Your task to perform on an android device: toggle translation in the chrome app Image 0: 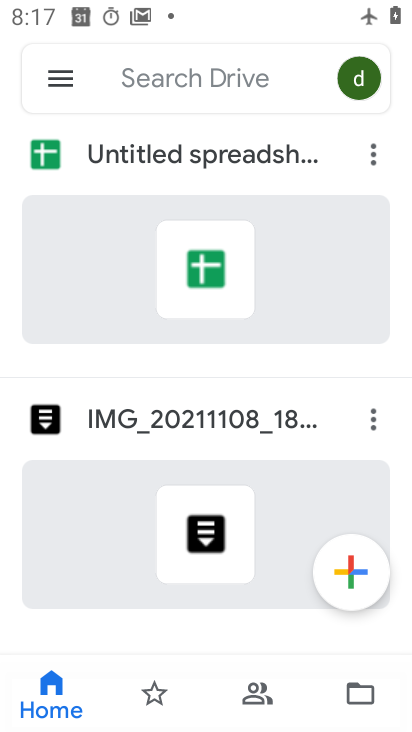
Step 0: press home button
Your task to perform on an android device: toggle translation in the chrome app Image 1: 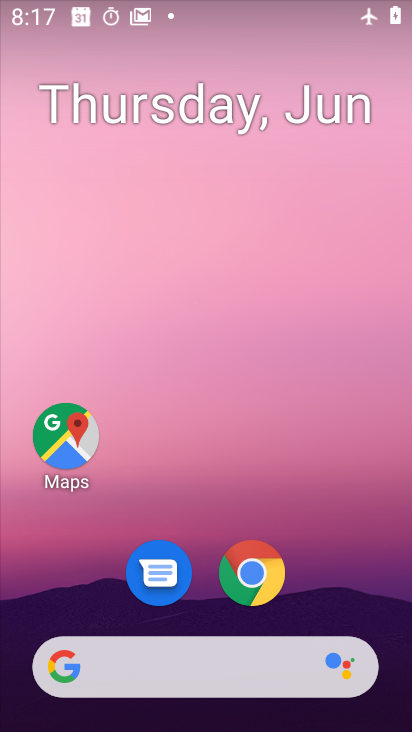
Step 1: click (235, 569)
Your task to perform on an android device: toggle translation in the chrome app Image 2: 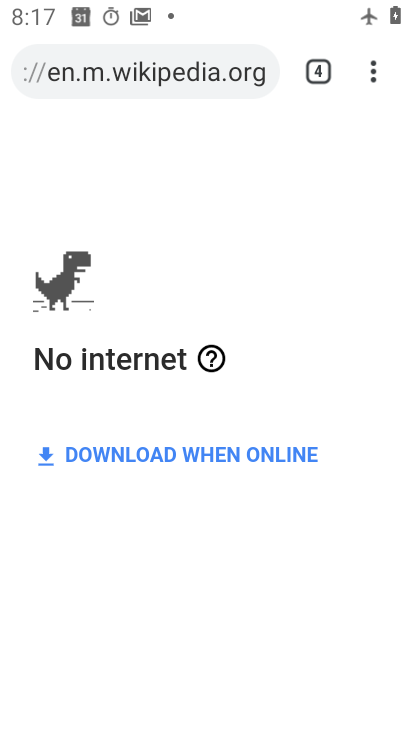
Step 2: click (369, 63)
Your task to perform on an android device: toggle translation in the chrome app Image 3: 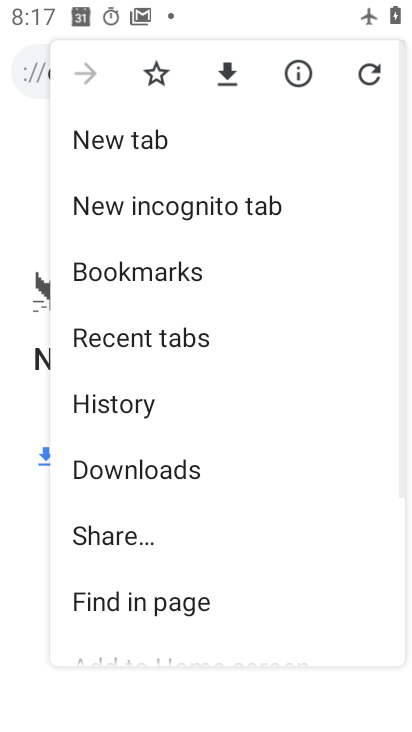
Step 3: drag from (143, 420) to (182, 219)
Your task to perform on an android device: toggle translation in the chrome app Image 4: 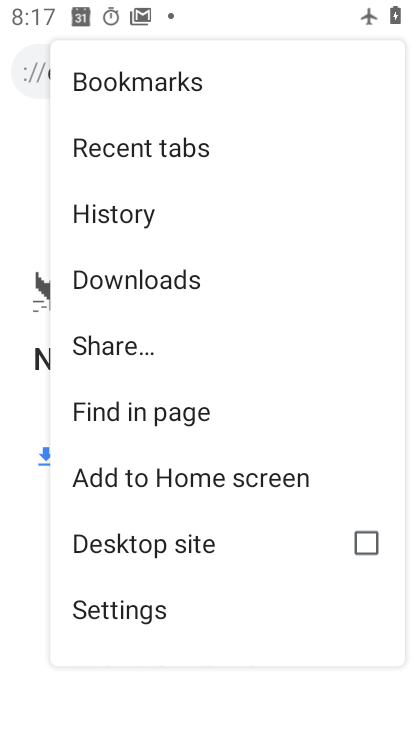
Step 4: click (175, 597)
Your task to perform on an android device: toggle translation in the chrome app Image 5: 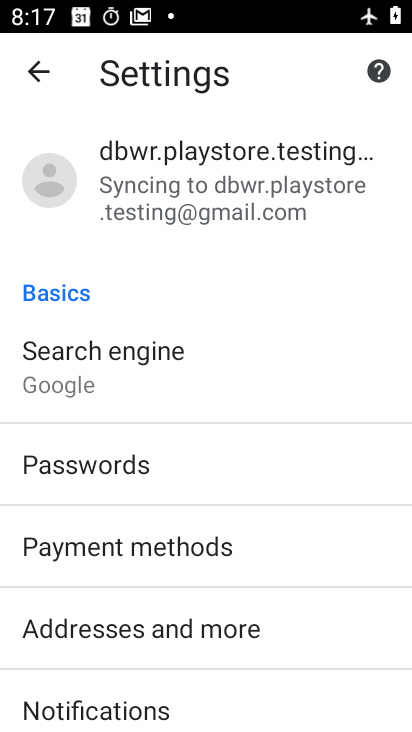
Step 5: drag from (160, 542) to (184, 299)
Your task to perform on an android device: toggle translation in the chrome app Image 6: 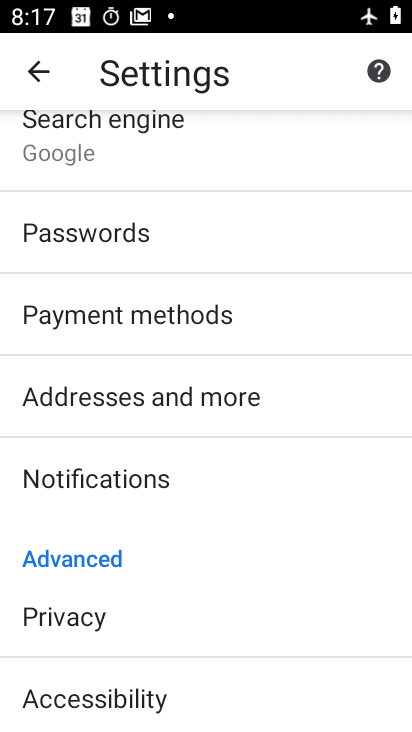
Step 6: drag from (126, 617) to (179, 322)
Your task to perform on an android device: toggle translation in the chrome app Image 7: 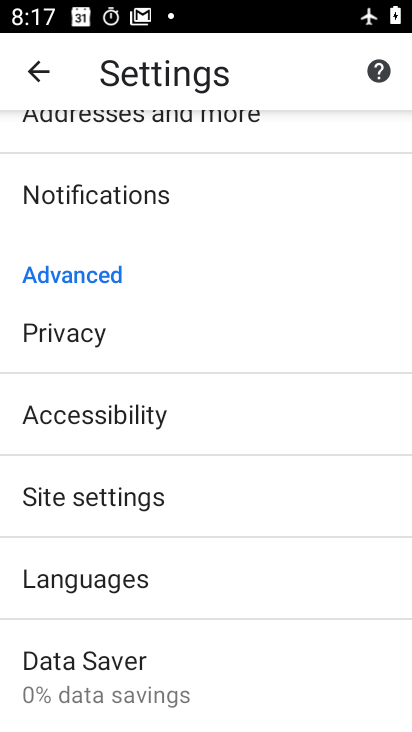
Step 7: click (142, 591)
Your task to perform on an android device: toggle translation in the chrome app Image 8: 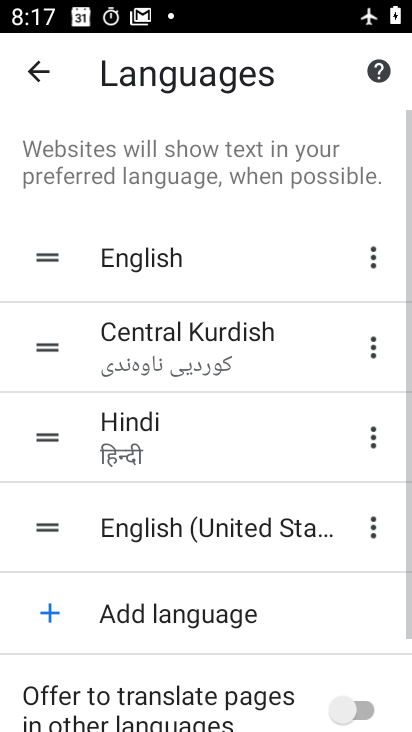
Step 8: click (342, 706)
Your task to perform on an android device: toggle translation in the chrome app Image 9: 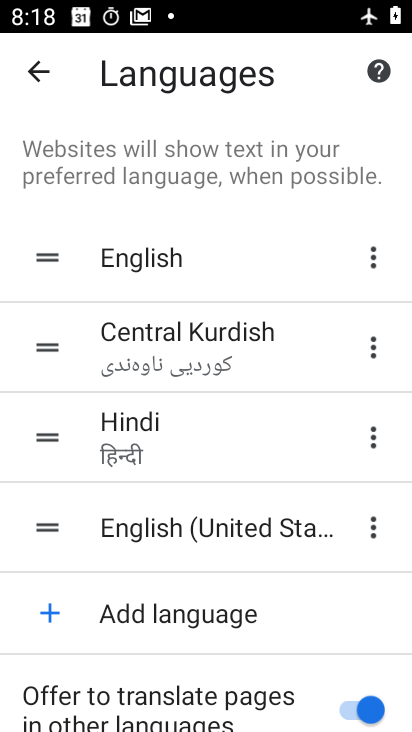
Step 9: task complete